Your task to perform on an android device: change timer sound Image 0: 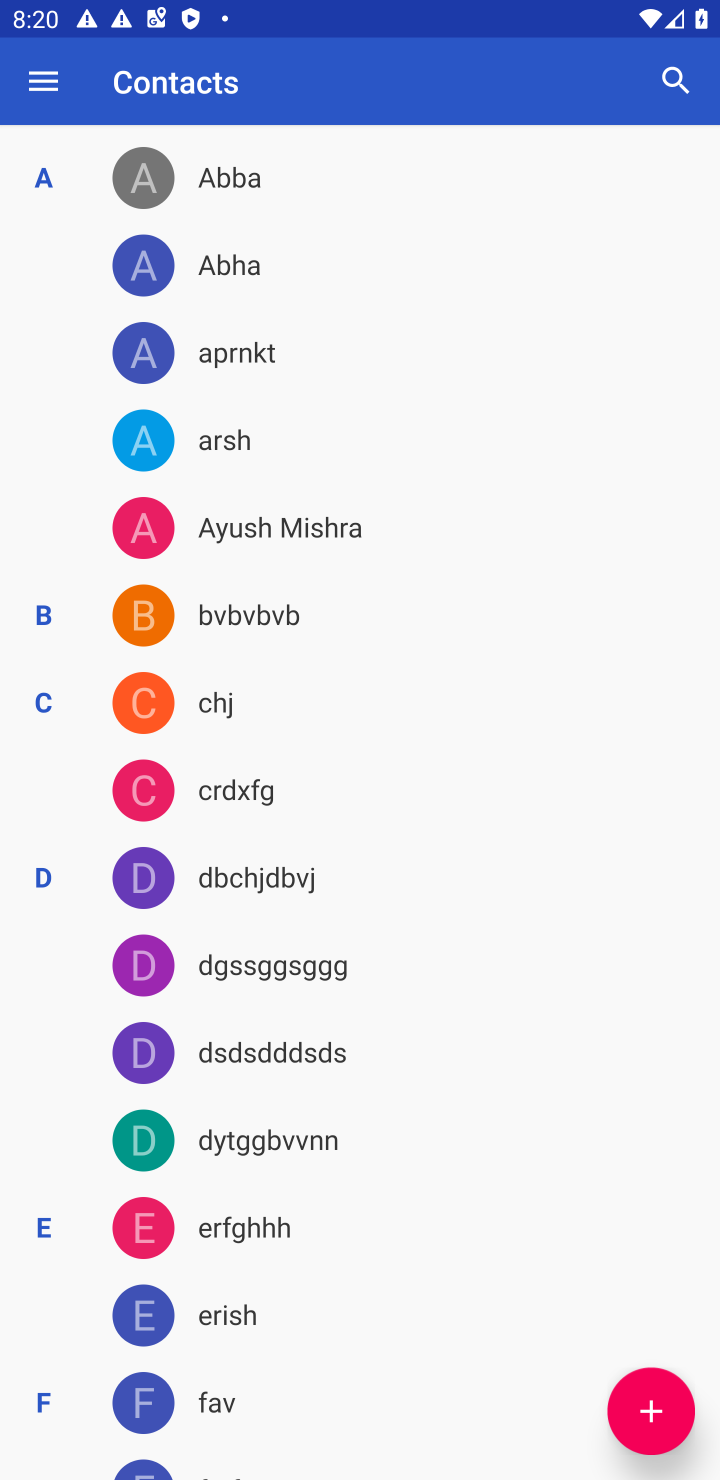
Step 0: press home button
Your task to perform on an android device: change timer sound Image 1: 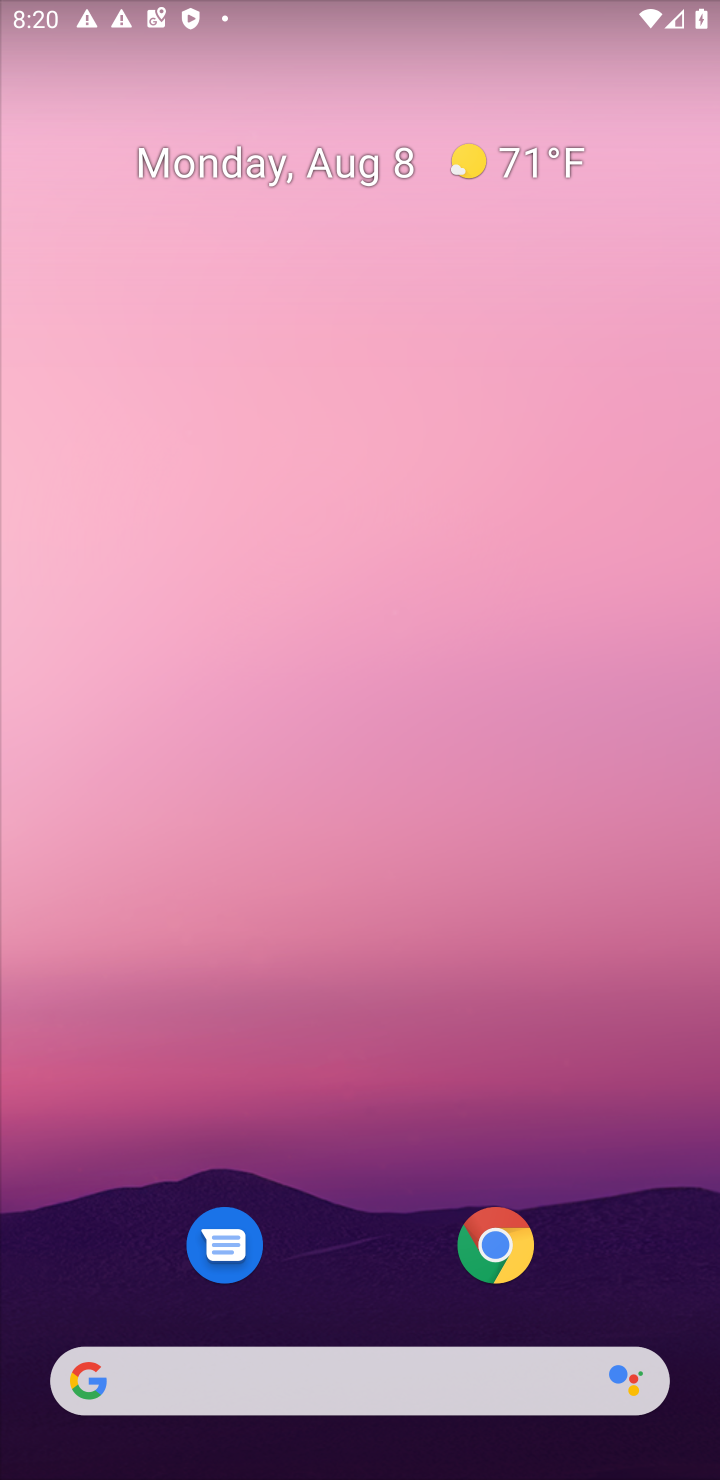
Step 1: drag from (369, 1267) to (316, 4)
Your task to perform on an android device: change timer sound Image 2: 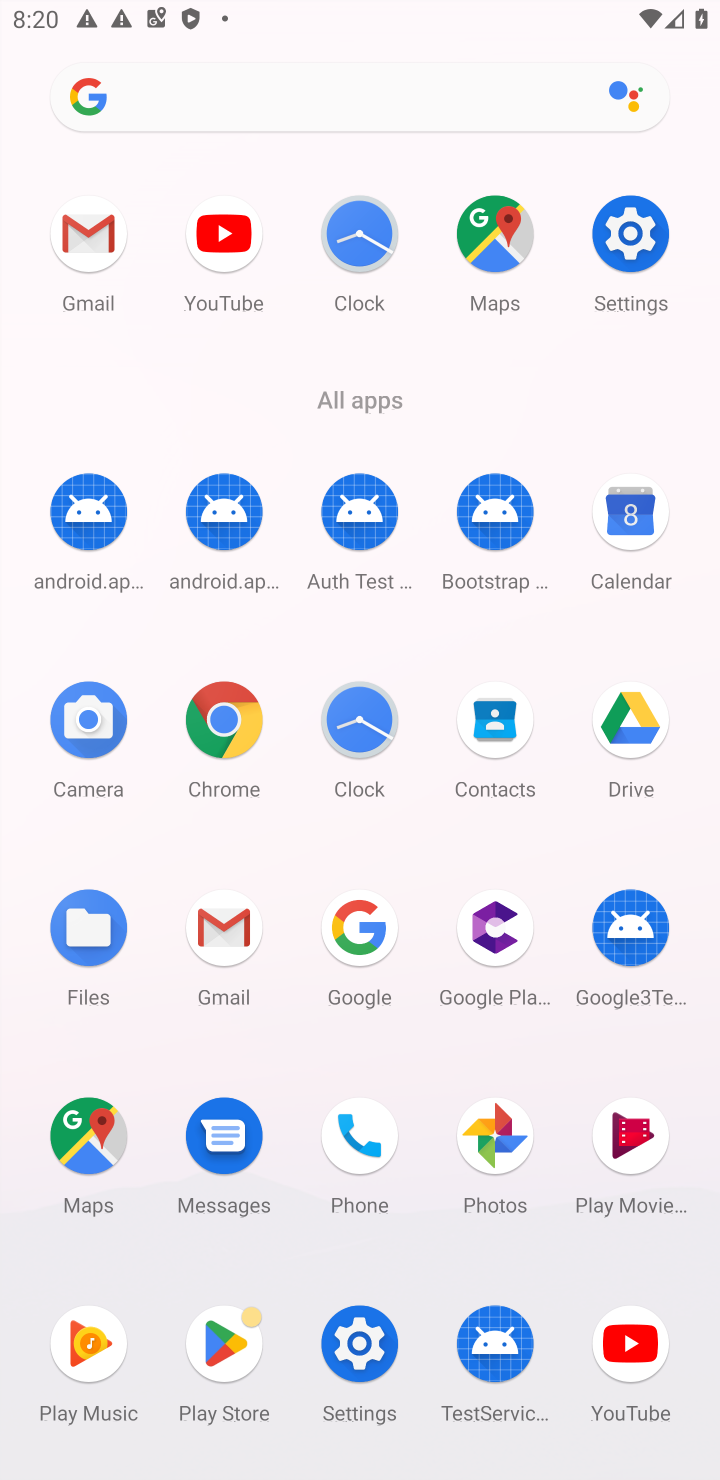
Step 2: click (359, 745)
Your task to perform on an android device: change timer sound Image 3: 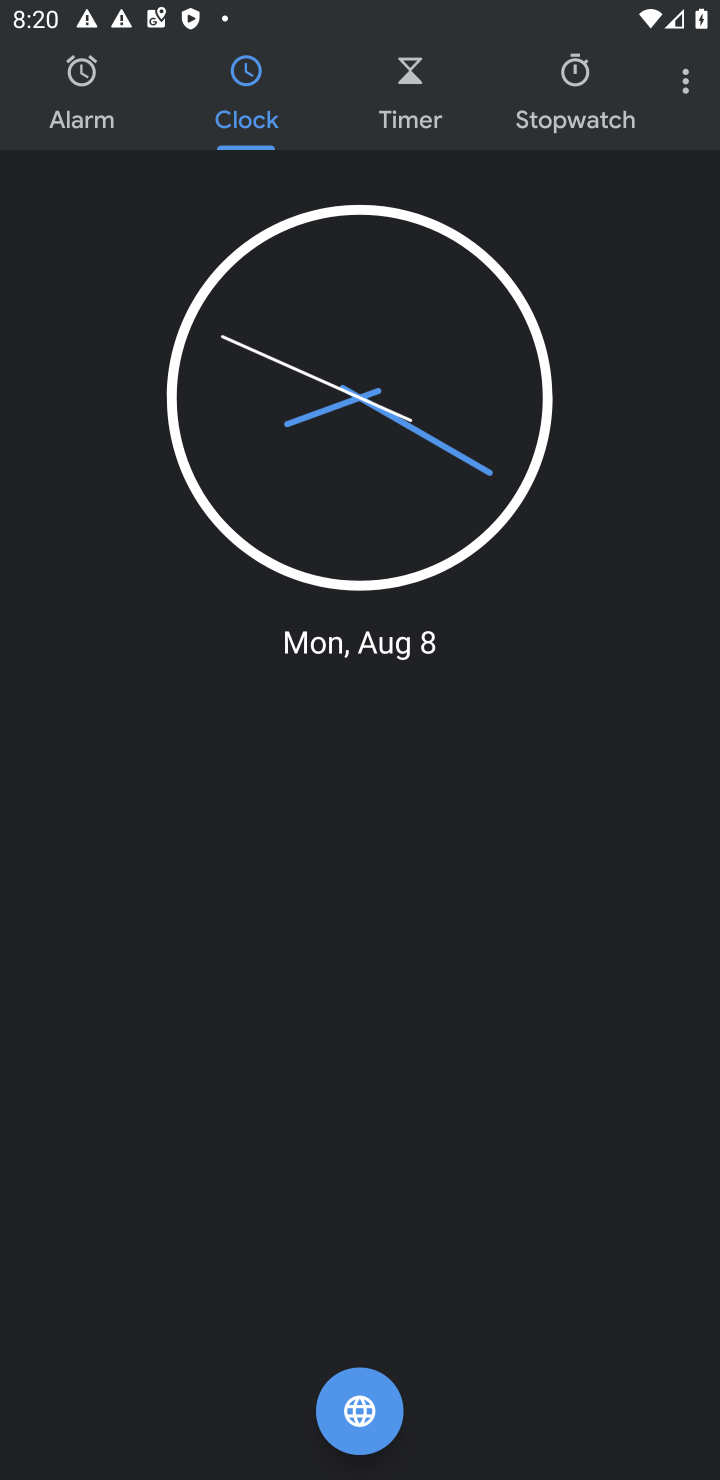
Step 3: click (676, 78)
Your task to perform on an android device: change timer sound Image 4: 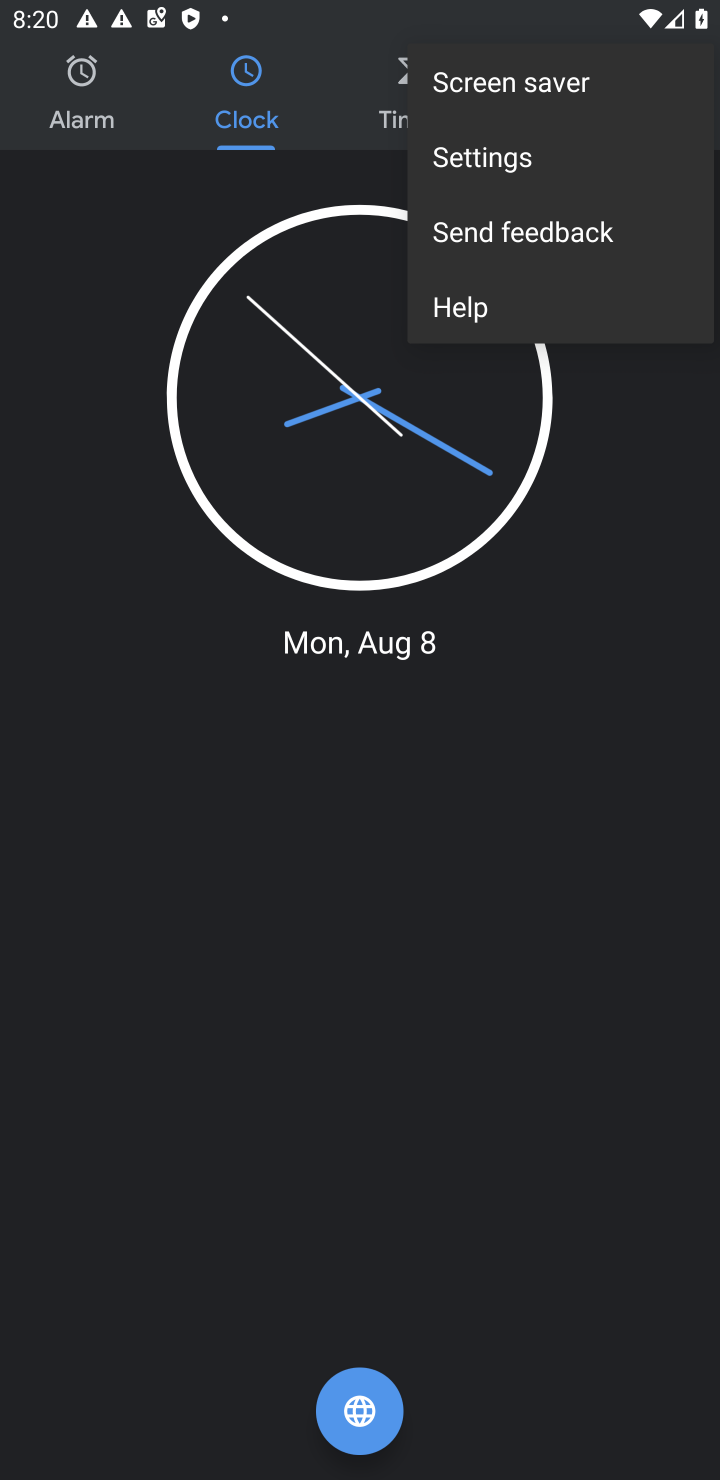
Step 4: click (496, 170)
Your task to perform on an android device: change timer sound Image 5: 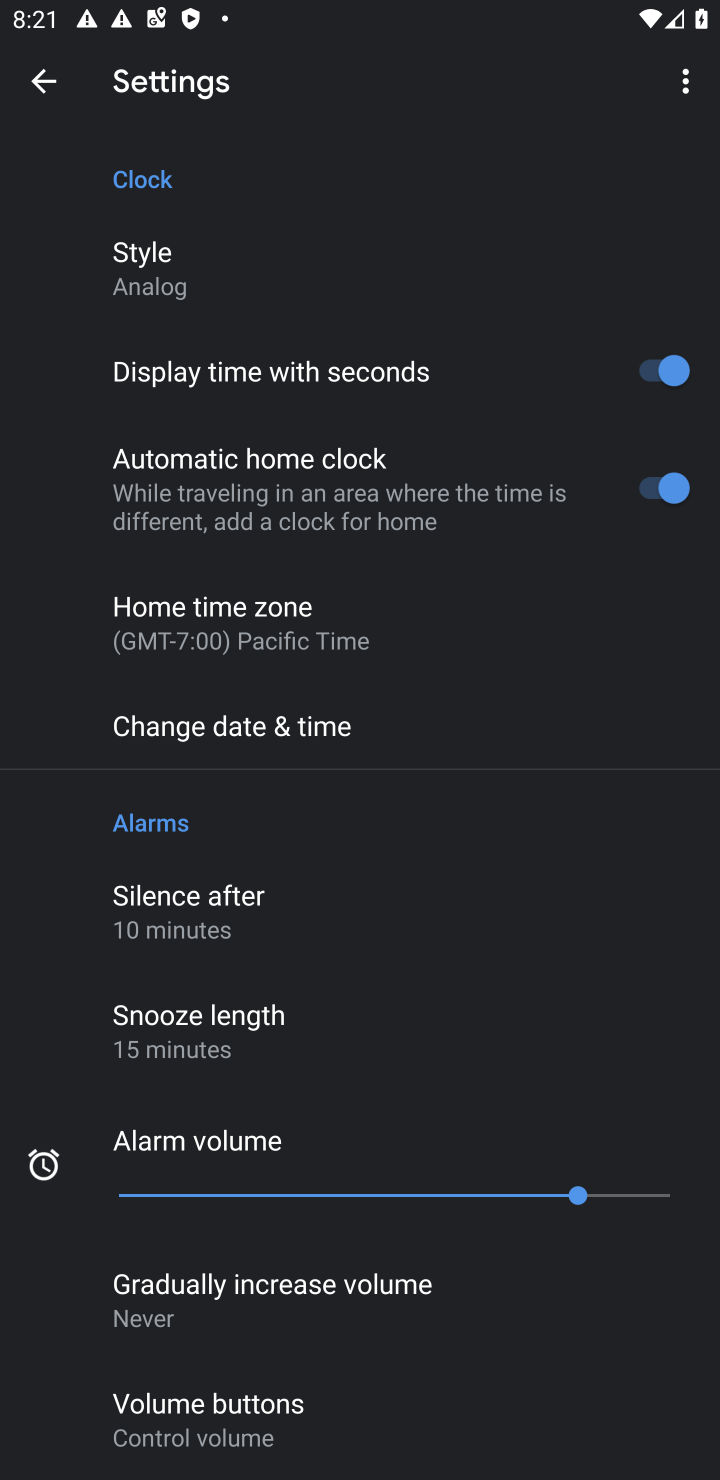
Step 5: drag from (335, 1110) to (400, 720)
Your task to perform on an android device: change timer sound Image 6: 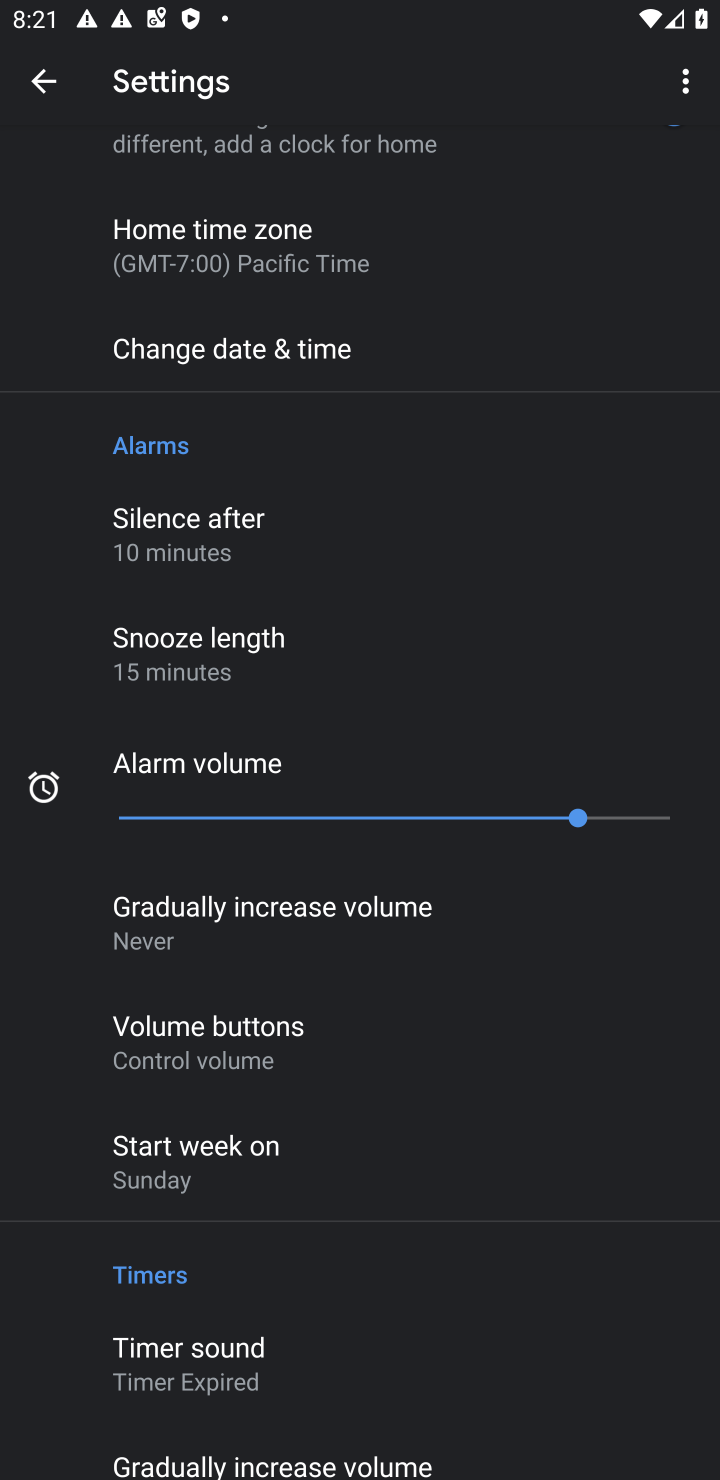
Step 6: click (212, 1365)
Your task to perform on an android device: change timer sound Image 7: 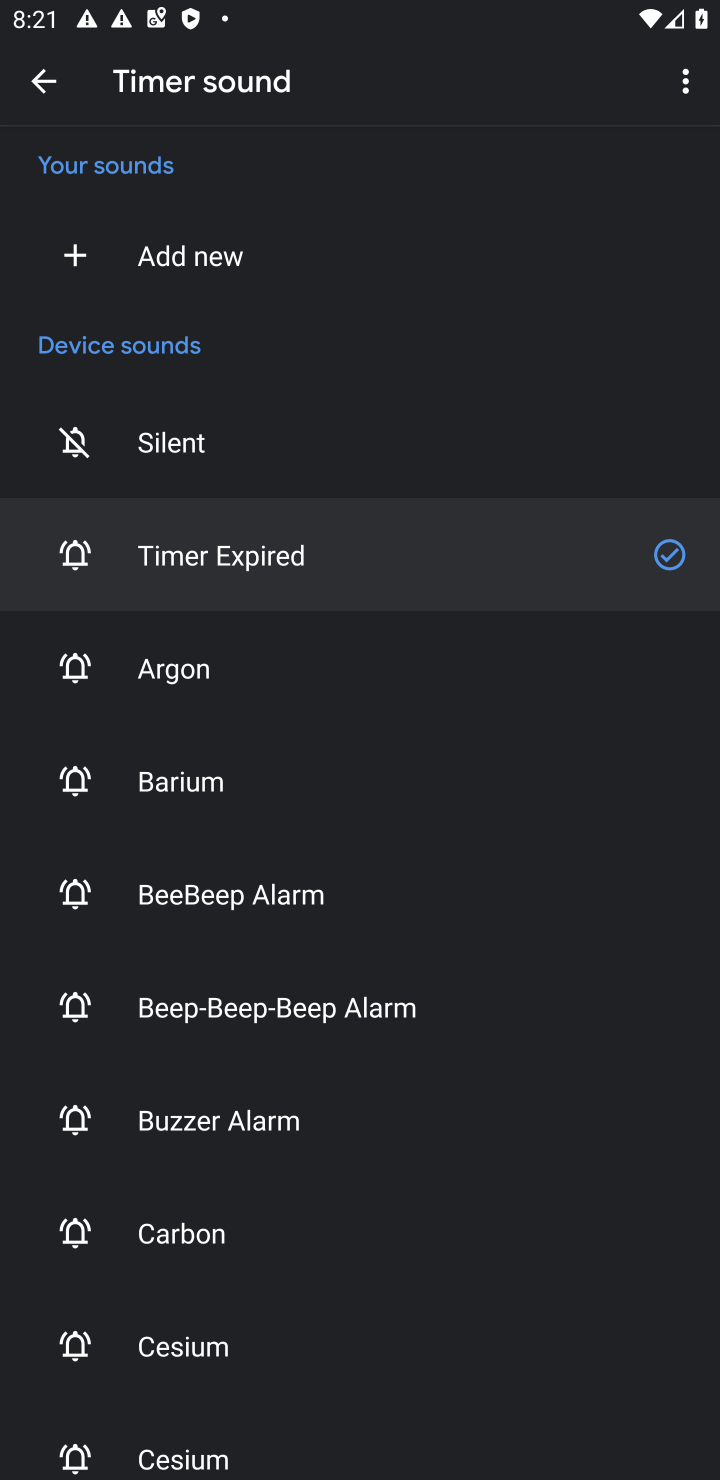
Step 7: click (170, 788)
Your task to perform on an android device: change timer sound Image 8: 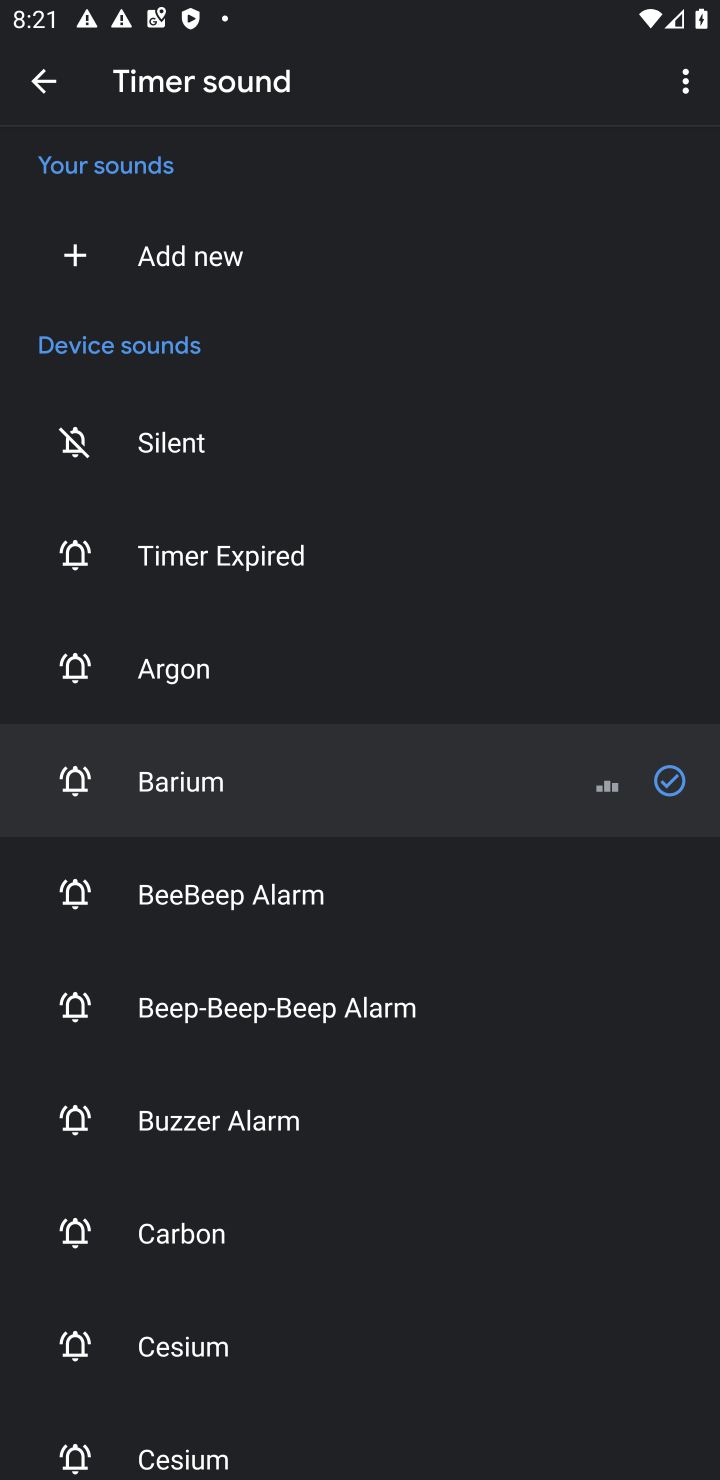
Step 8: task complete